Your task to perform on an android device: add a contact Image 0: 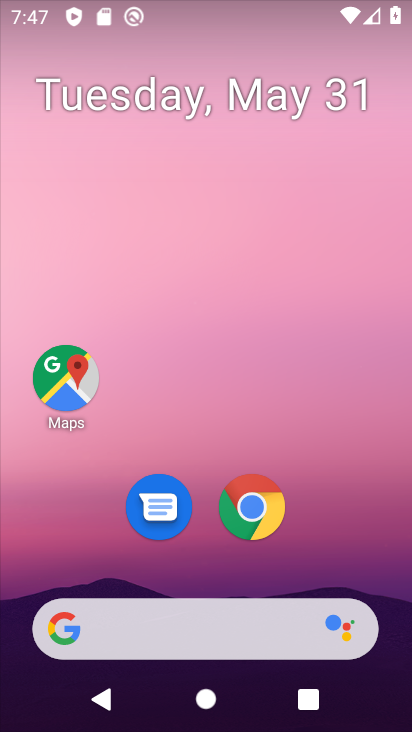
Step 0: drag from (341, 585) to (324, 9)
Your task to perform on an android device: add a contact Image 1: 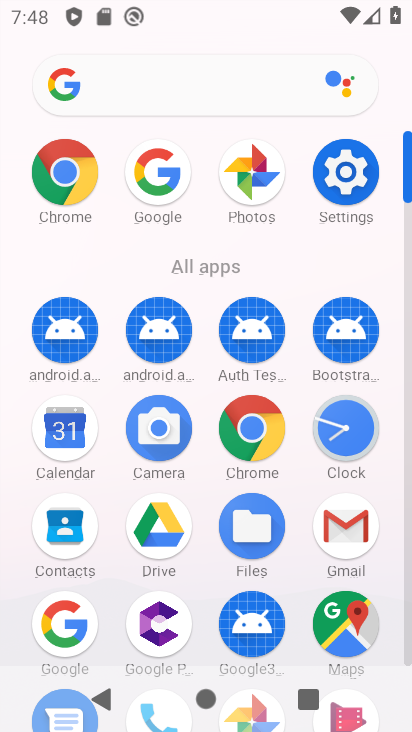
Step 1: click (54, 540)
Your task to perform on an android device: add a contact Image 2: 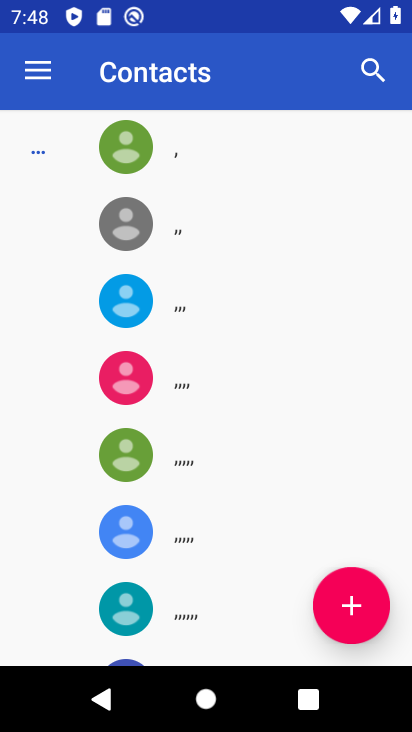
Step 2: click (349, 608)
Your task to perform on an android device: add a contact Image 3: 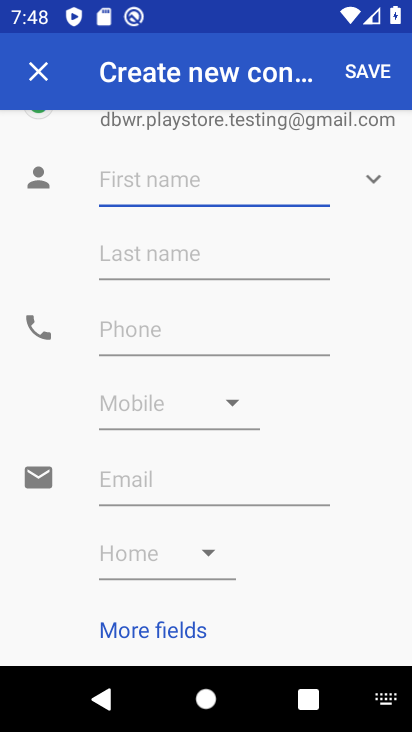
Step 3: type "nemu"
Your task to perform on an android device: add a contact Image 4: 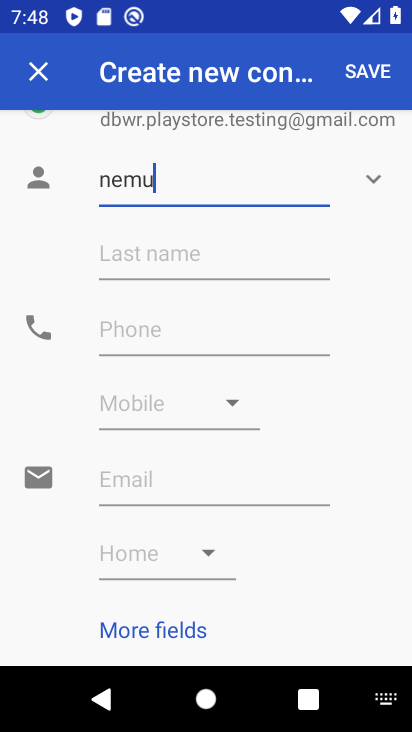
Step 4: click (204, 338)
Your task to perform on an android device: add a contact Image 5: 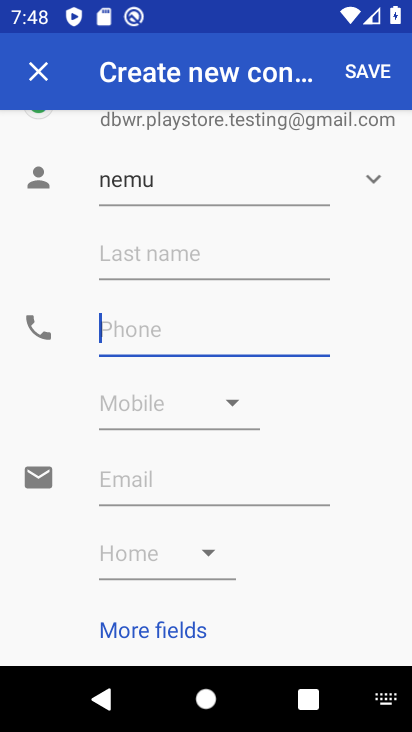
Step 5: type "7568473657"
Your task to perform on an android device: add a contact Image 6: 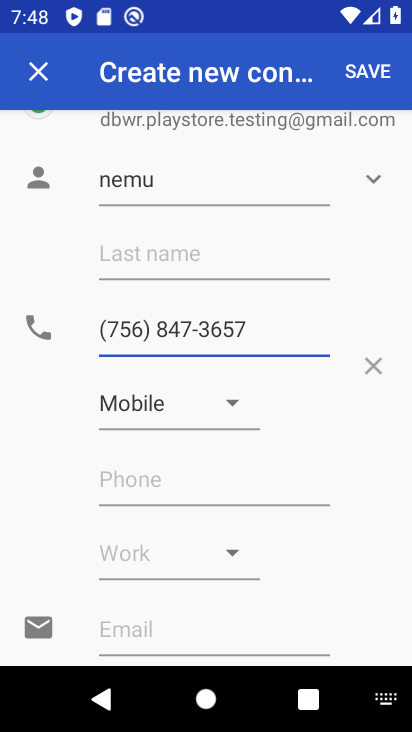
Step 6: click (388, 72)
Your task to perform on an android device: add a contact Image 7: 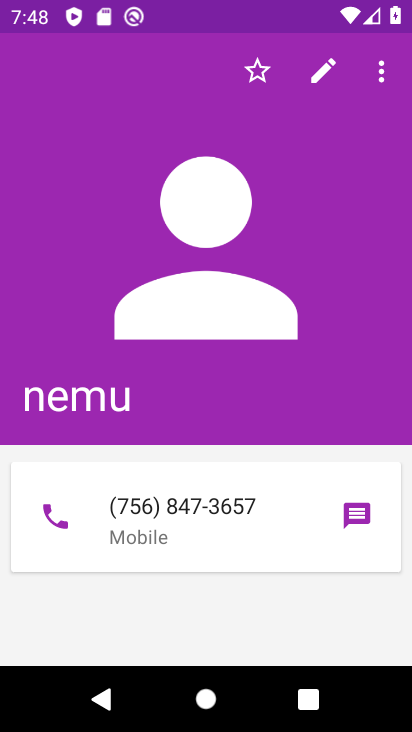
Step 7: task complete